Your task to perform on an android device: Open the web browser Image 0: 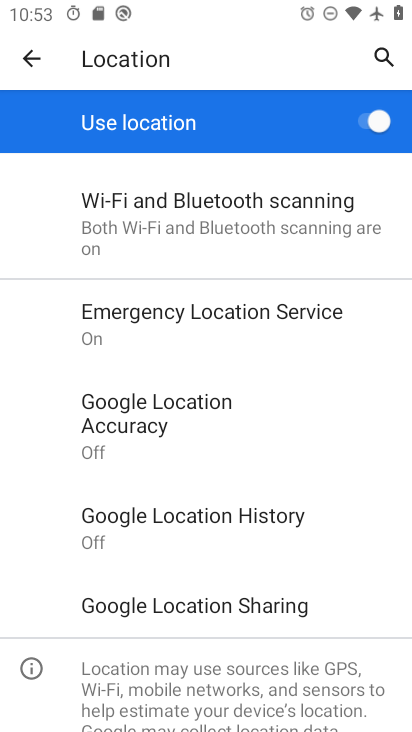
Step 0: press home button
Your task to perform on an android device: Open the web browser Image 1: 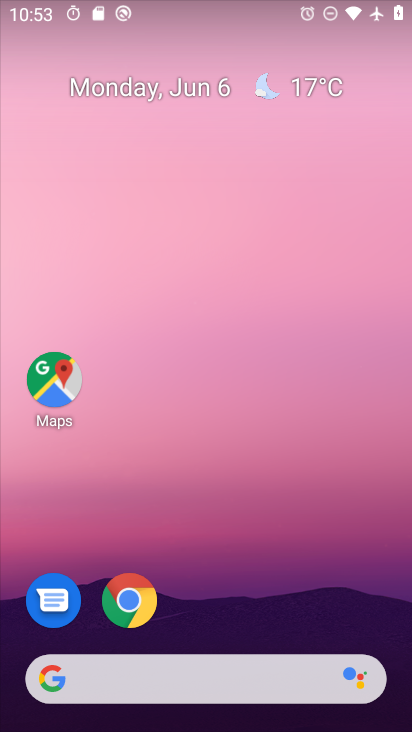
Step 1: click (131, 610)
Your task to perform on an android device: Open the web browser Image 2: 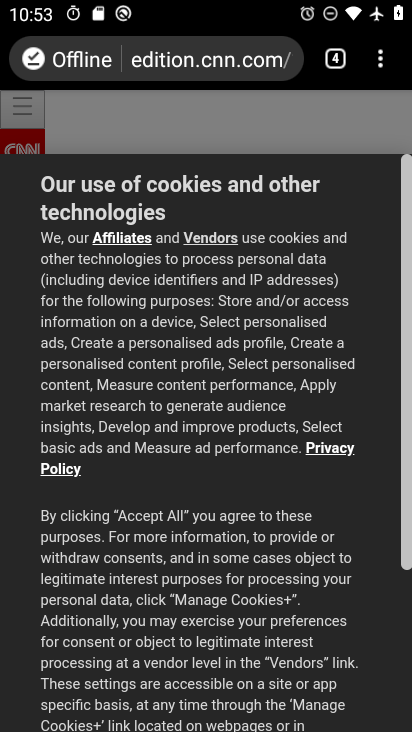
Step 2: task complete